Your task to perform on an android device: Go to sound settings Image 0: 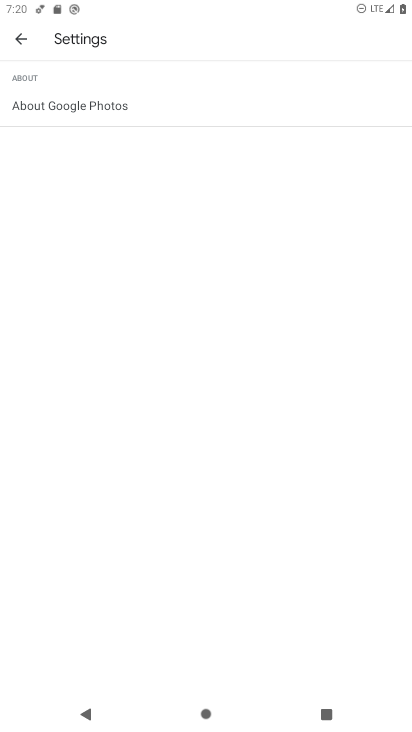
Step 0: press home button
Your task to perform on an android device: Go to sound settings Image 1: 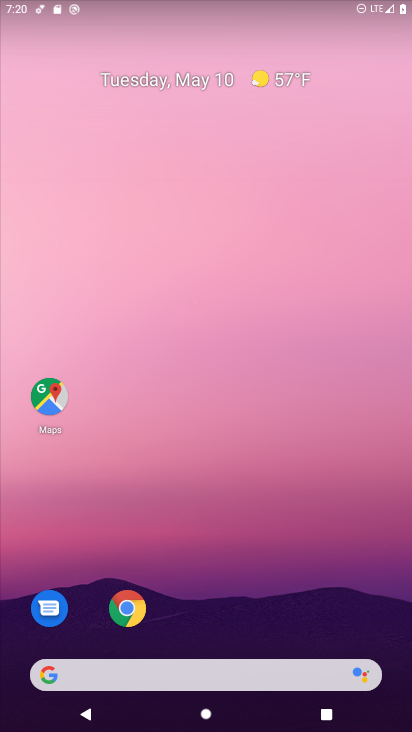
Step 1: drag from (317, 605) to (317, 47)
Your task to perform on an android device: Go to sound settings Image 2: 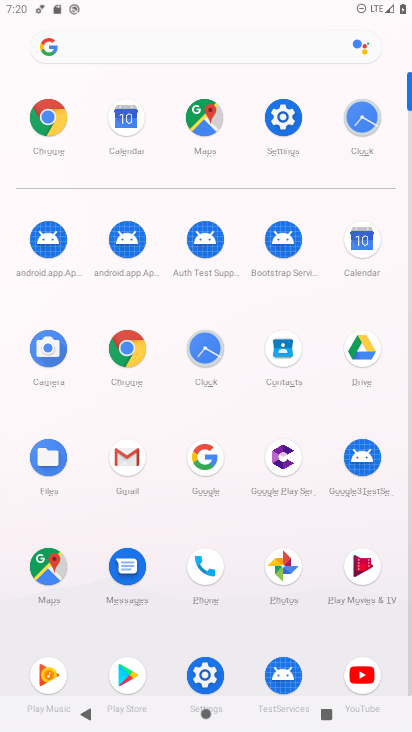
Step 2: click (200, 662)
Your task to perform on an android device: Go to sound settings Image 3: 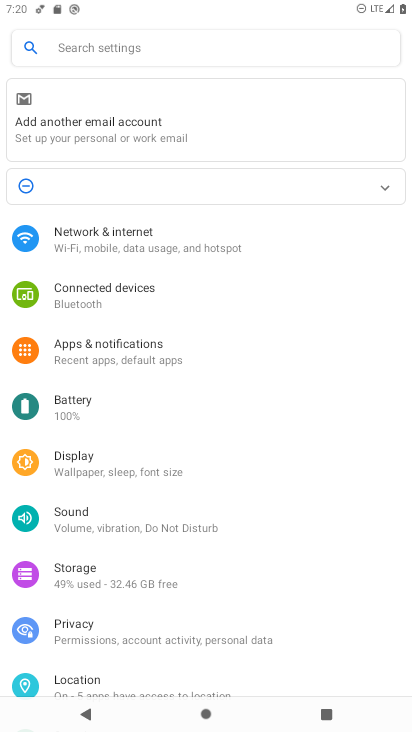
Step 3: click (111, 531)
Your task to perform on an android device: Go to sound settings Image 4: 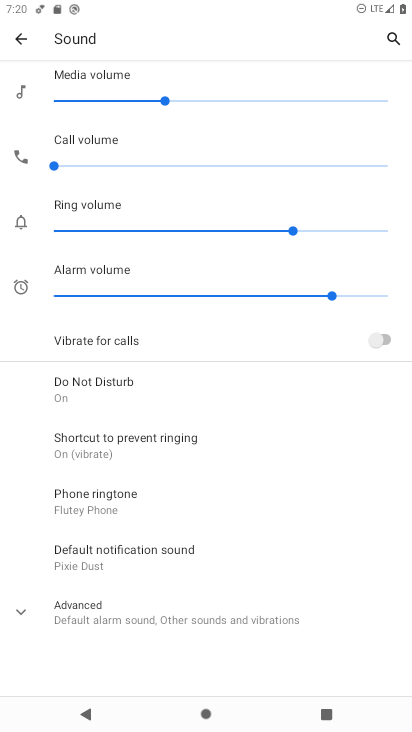
Step 4: task complete